Your task to perform on an android device: change the clock display to show seconds Image 0: 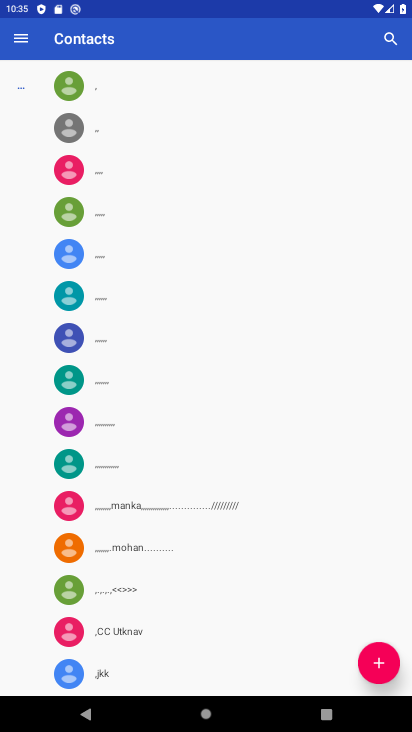
Step 0: press home button
Your task to perform on an android device: change the clock display to show seconds Image 1: 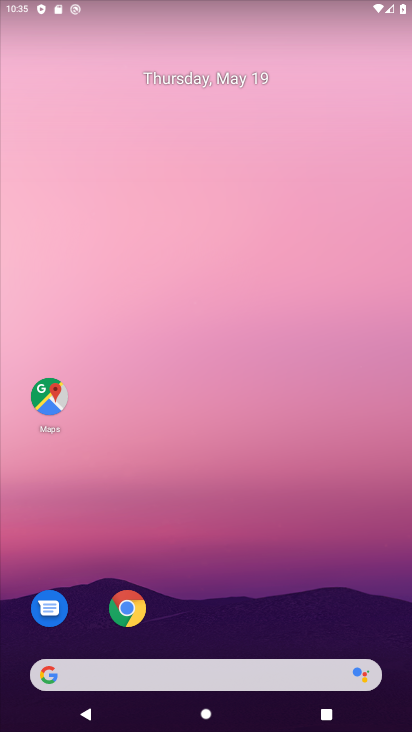
Step 1: drag from (395, 692) to (377, 415)
Your task to perform on an android device: change the clock display to show seconds Image 2: 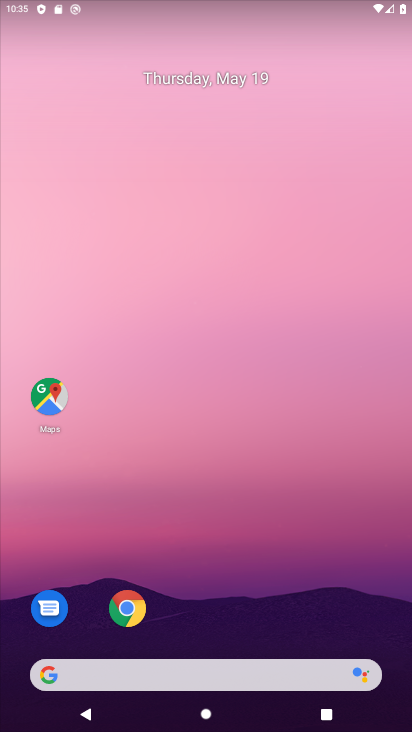
Step 2: drag from (399, 663) to (376, 122)
Your task to perform on an android device: change the clock display to show seconds Image 3: 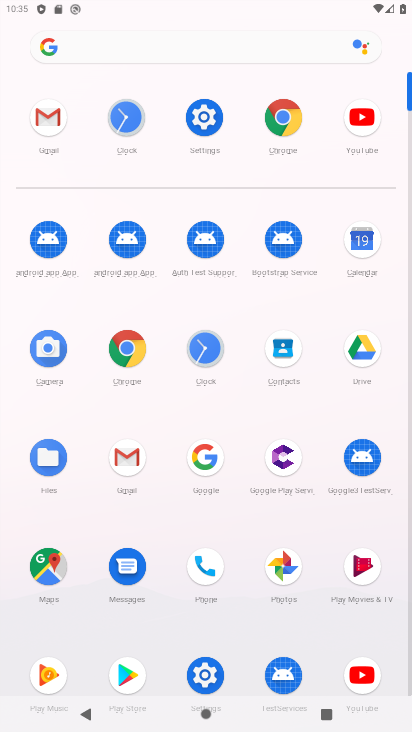
Step 3: click (203, 351)
Your task to perform on an android device: change the clock display to show seconds Image 4: 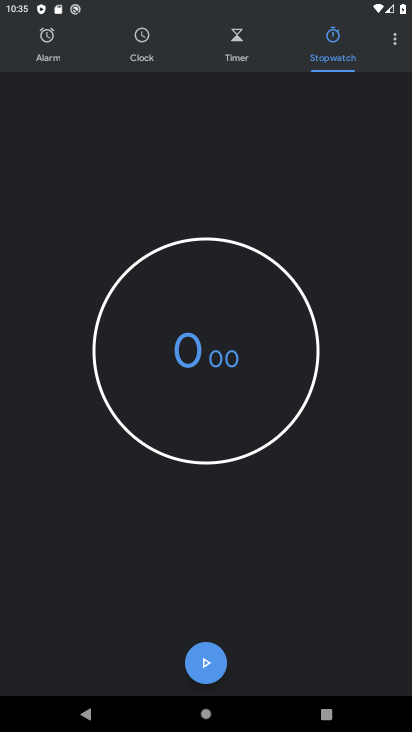
Step 4: click (397, 43)
Your task to perform on an android device: change the clock display to show seconds Image 5: 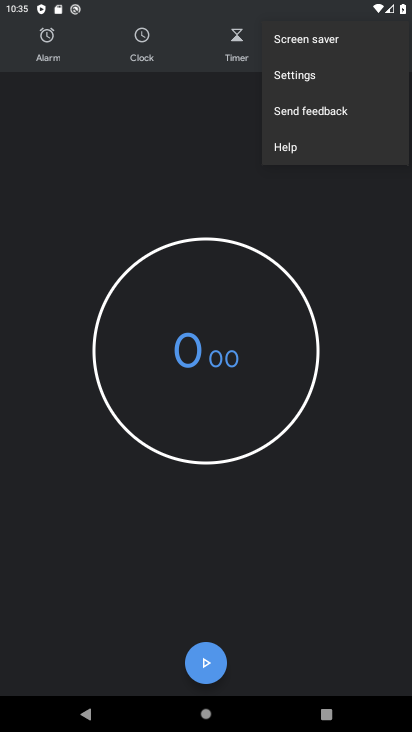
Step 5: click (310, 80)
Your task to perform on an android device: change the clock display to show seconds Image 6: 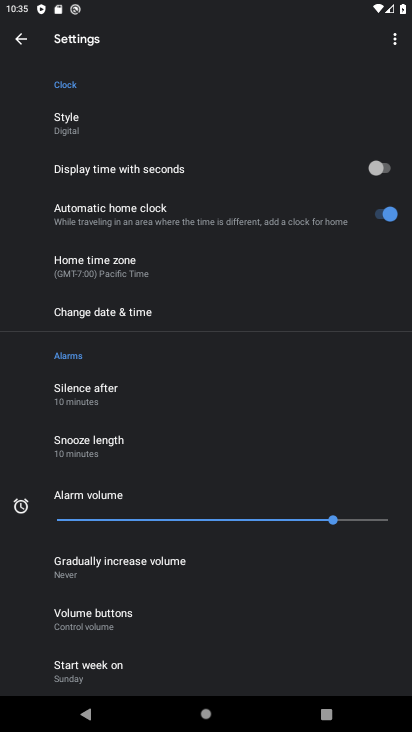
Step 6: click (377, 167)
Your task to perform on an android device: change the clock display to show seconds Image 7: 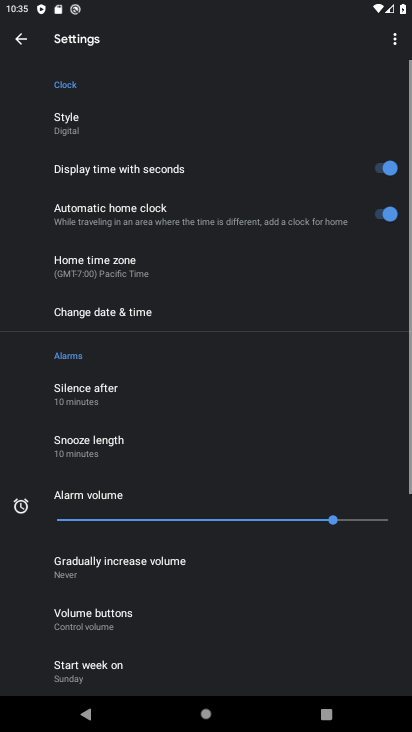
Step 7: task complete